Your task to perform on an android device: Go to Yahoo.com Image 0: 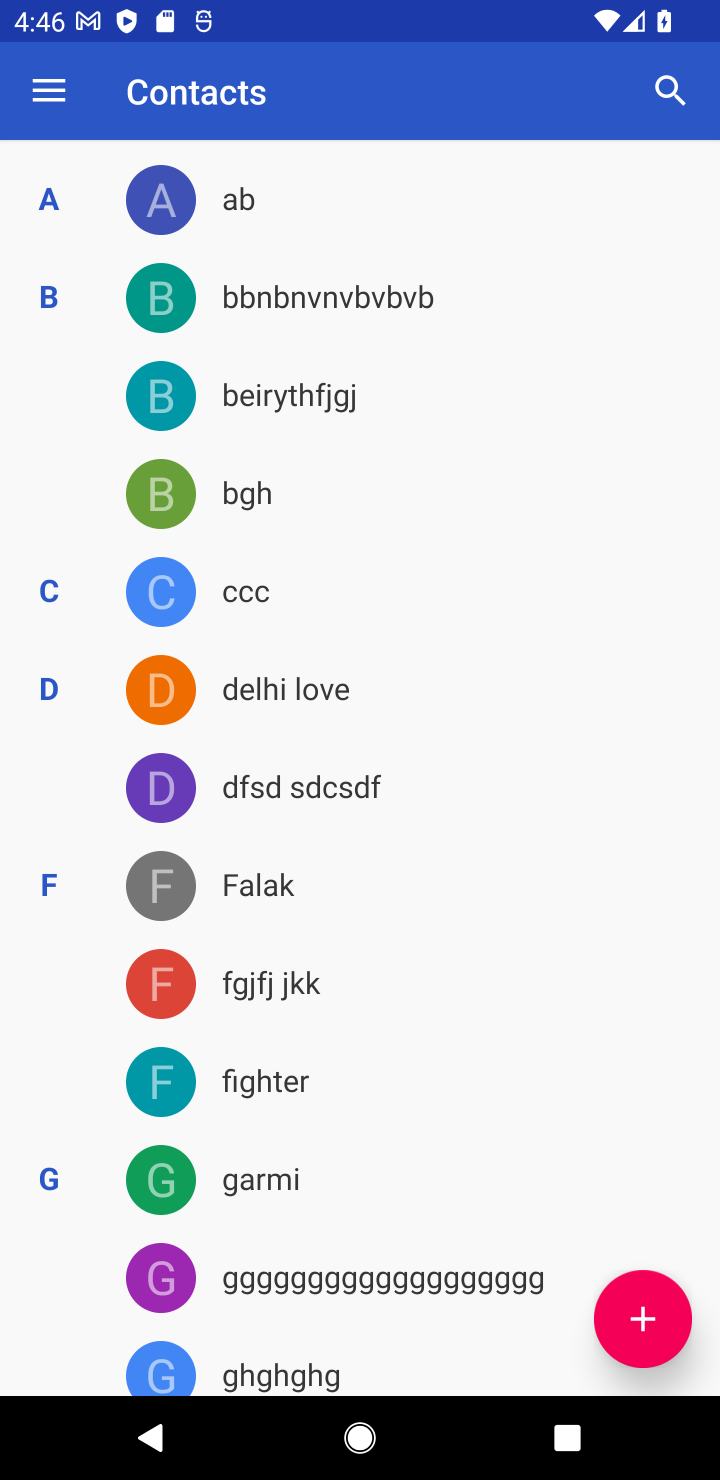
Step 0: press home button
Your task to perform on an android device: Go to Yahoo.com Image 1: 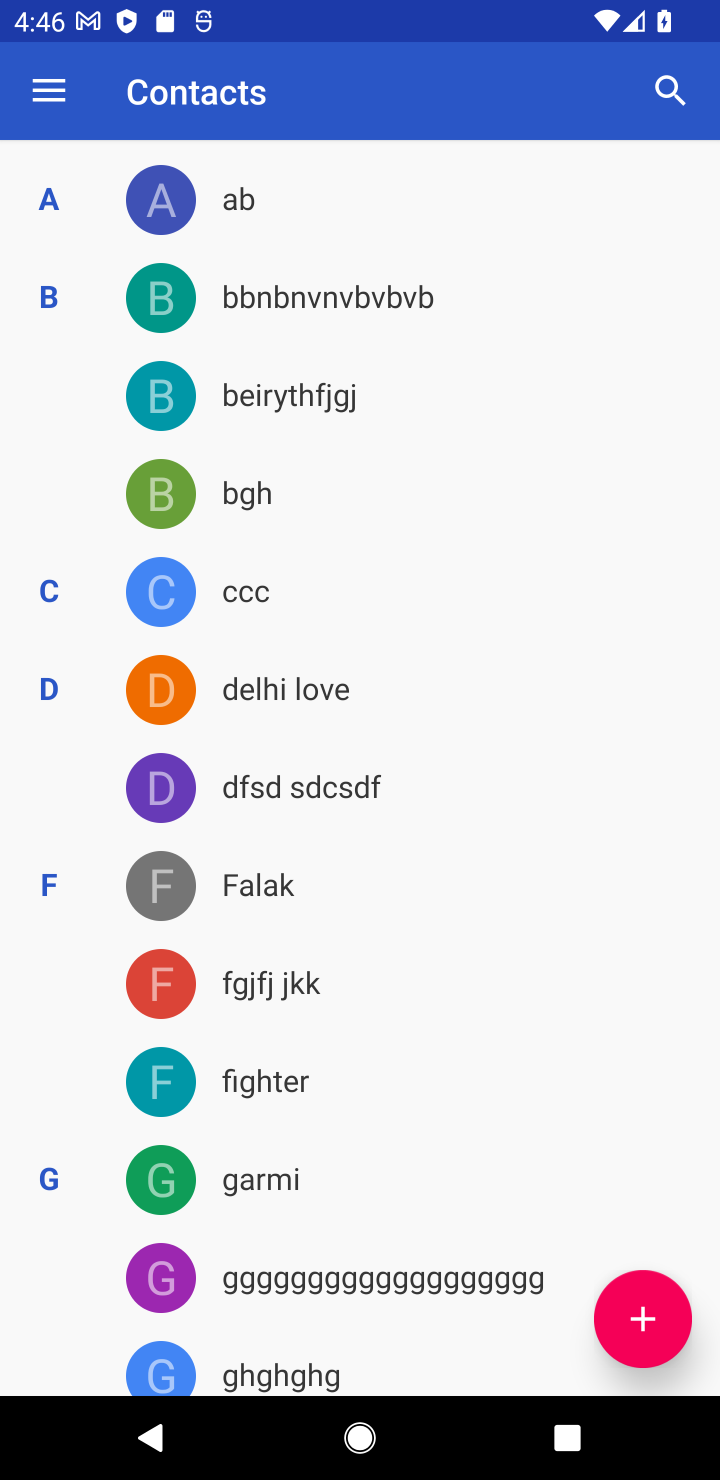
Step 1: press home button
Your task to perform on an android device: Go to Yahoo.com Image 2: 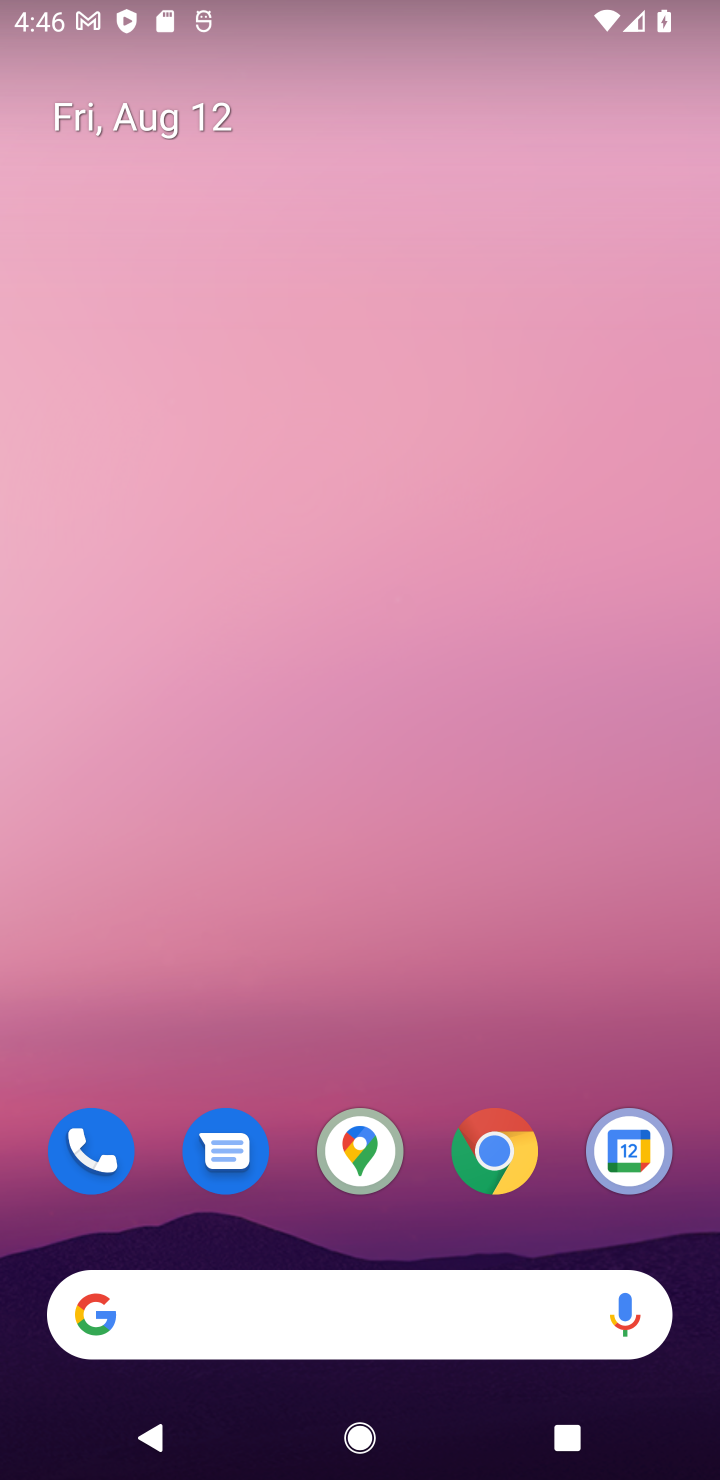
Step 2: drag from (346, 938) to (498, 25)
Your task to perform on an android device: Go to Yahoo.com Image 3: 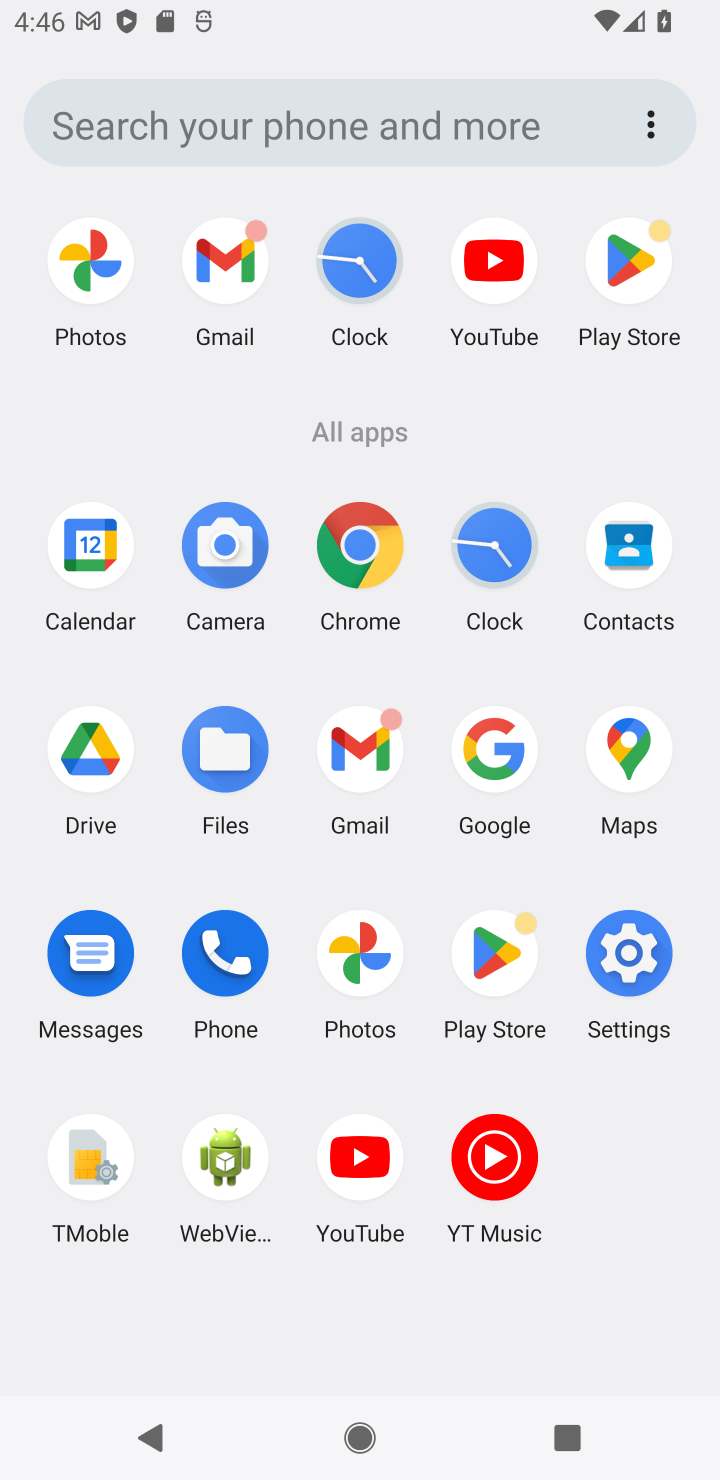
Step 3: click (360, 544)
Your task to perform on an android device: Go to Yahoo.com Image 4: 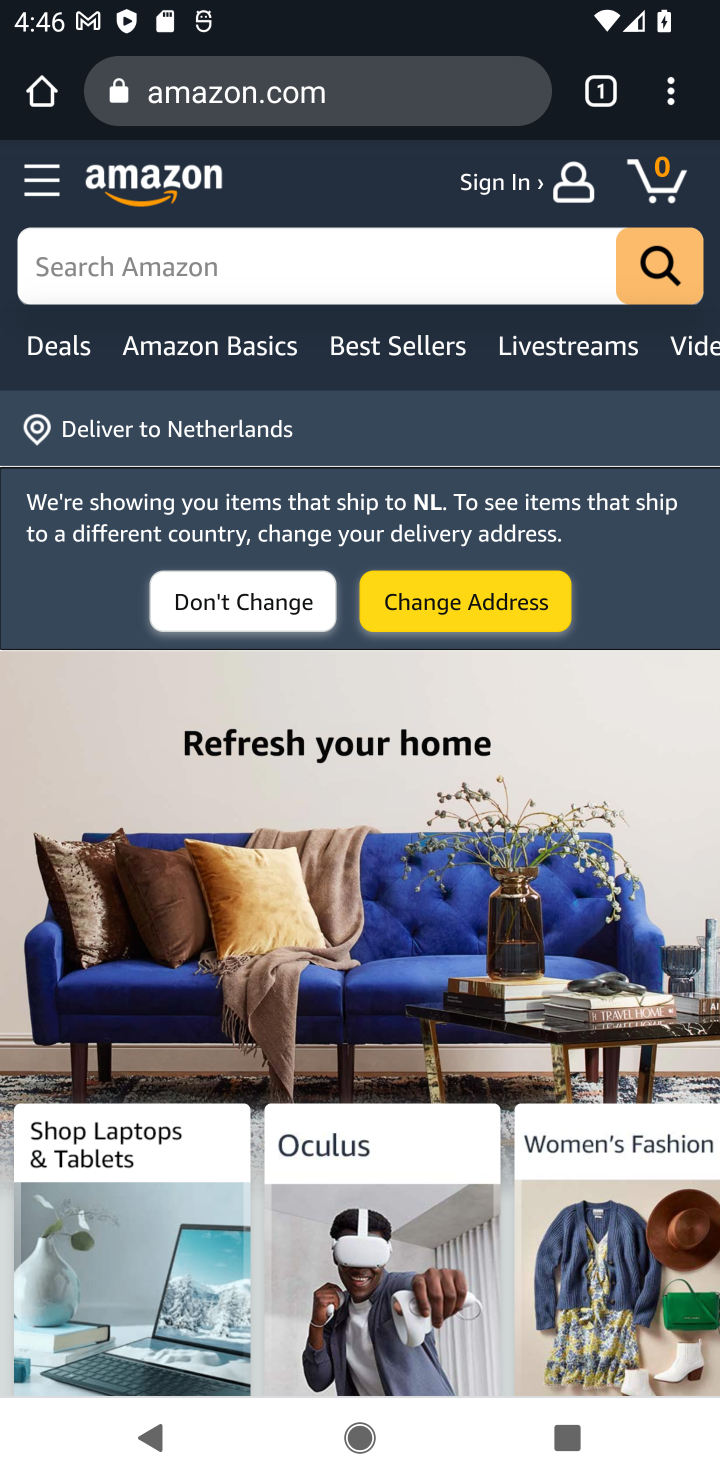
Step 4: click (424, 113)
Your task to perform on an android device: Go to Yahoo.com Image 5: 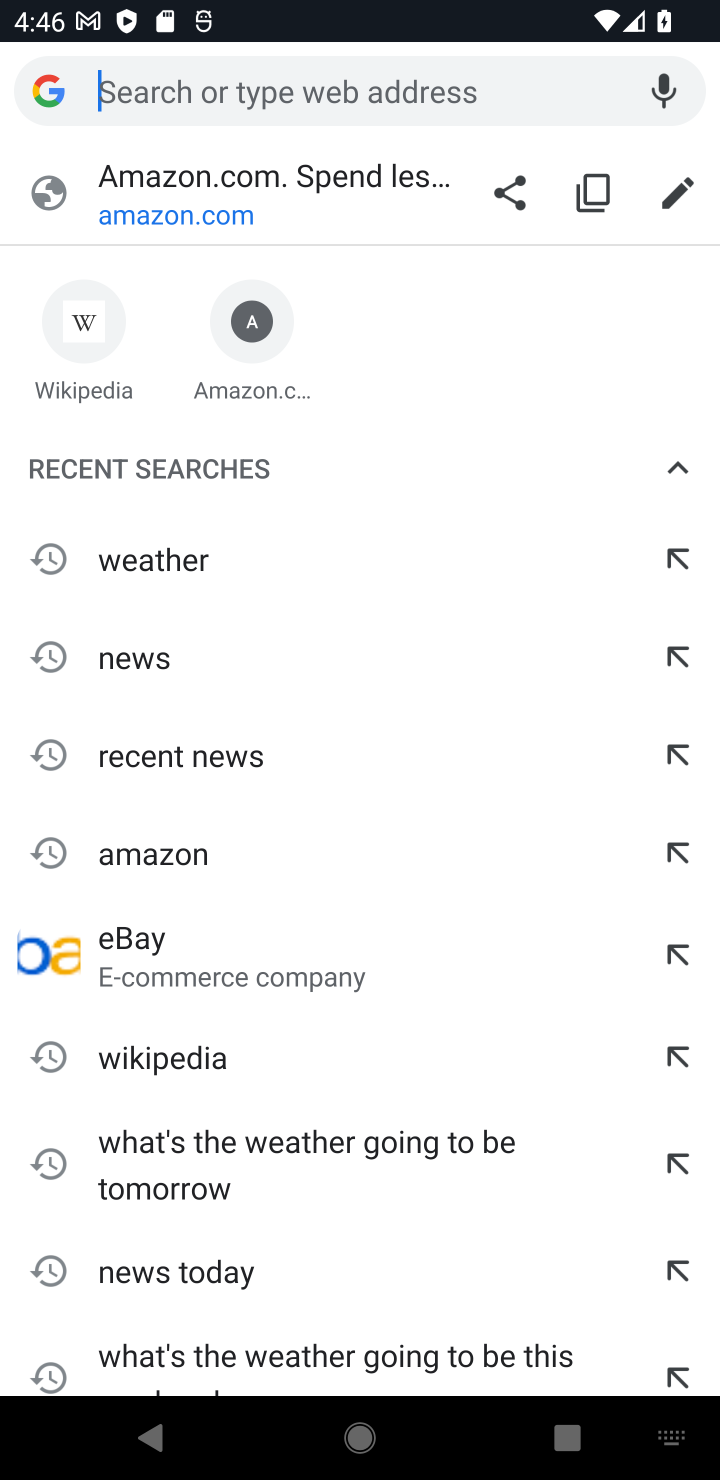
Step 5: type "yahoo.com"
Your task to perform on an android device: Go to Yahoo.com Image 6: 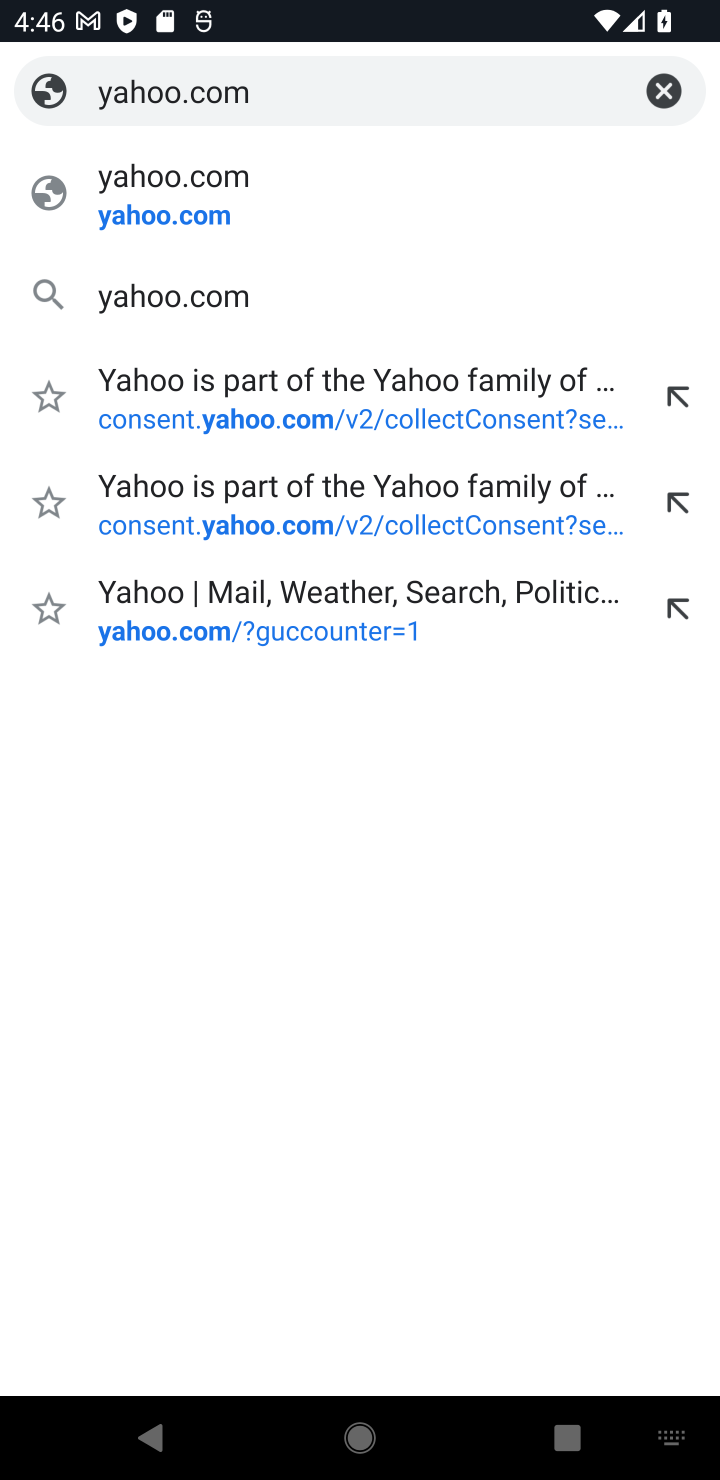
Step 6: click (187, 222)
Your task to perform on an android device: Go to Yahoo.com Image 7: 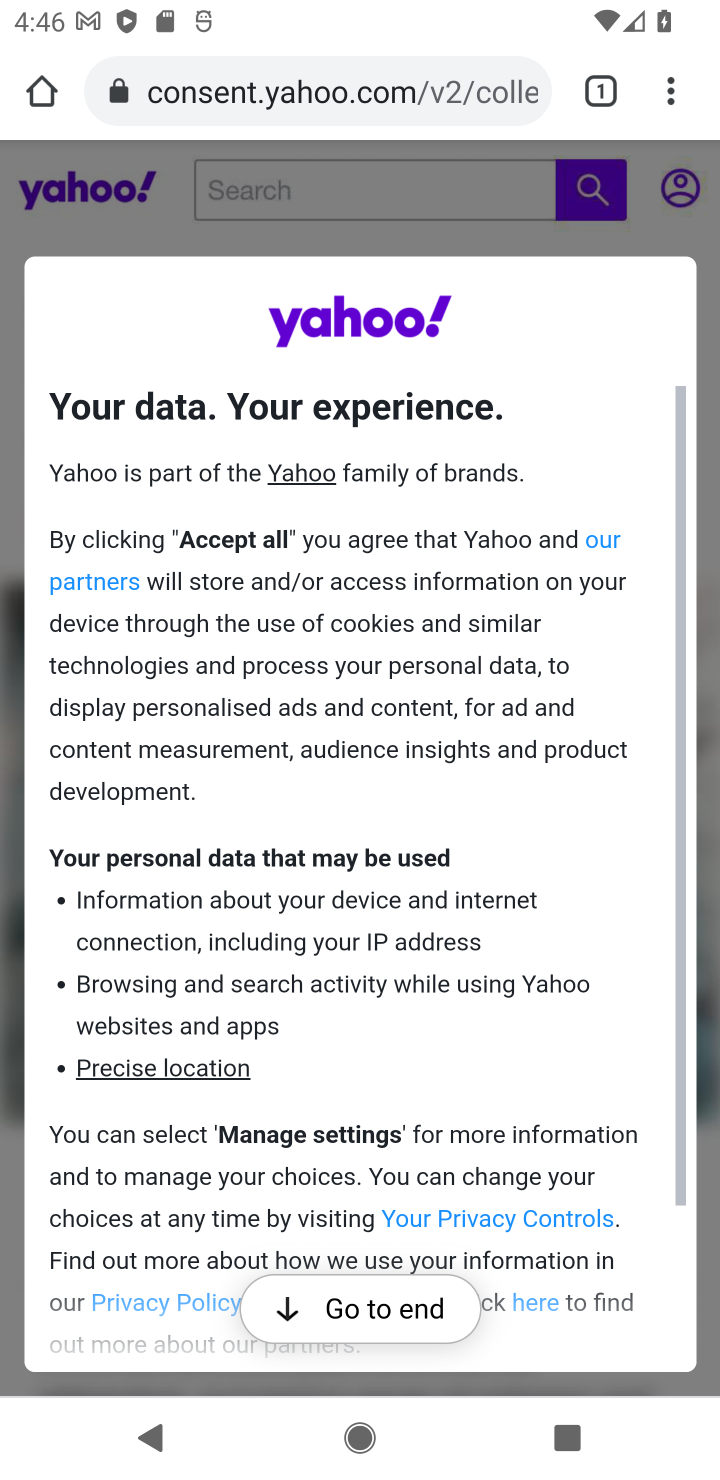
Step 7: task complete